Your task to perform on an android device: open chrome privacy settings Image 0: 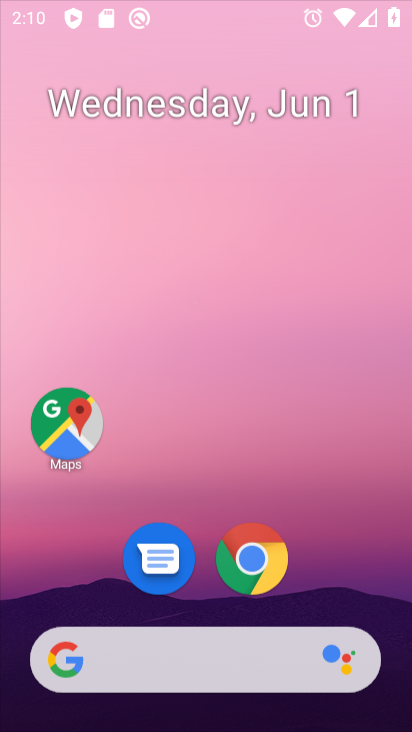
Step 0: press home button
Your task to perform on an android device: open chrome privacy settings Image 1: 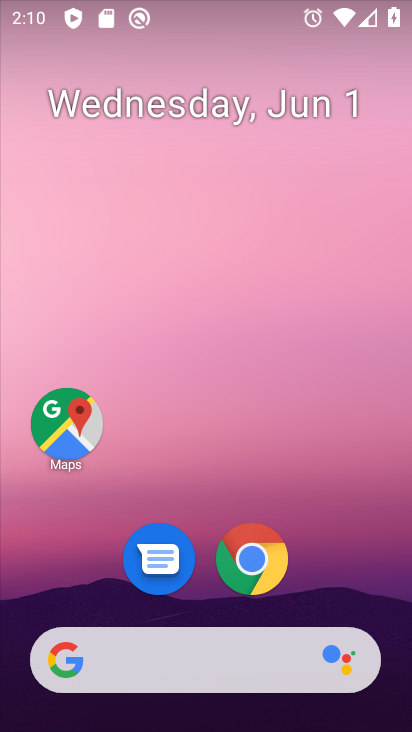
Step 1: click (252, 555)
Your task to perform on an android device: open chrome privacy settings Image 2: 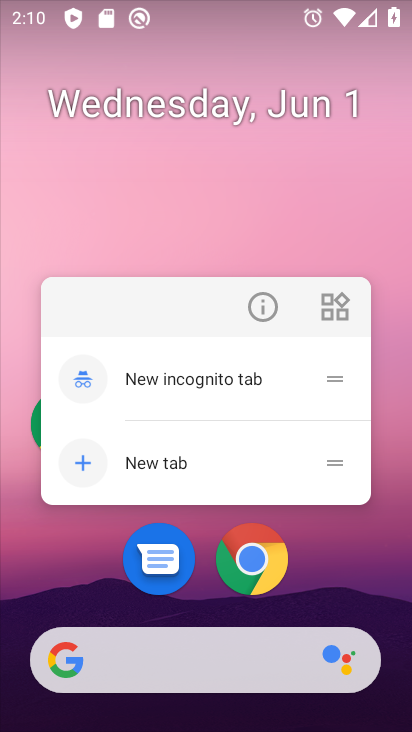
Step 2: click (251, 554)
Your task to perform on an android device: open chrome privacy settings Image 3: 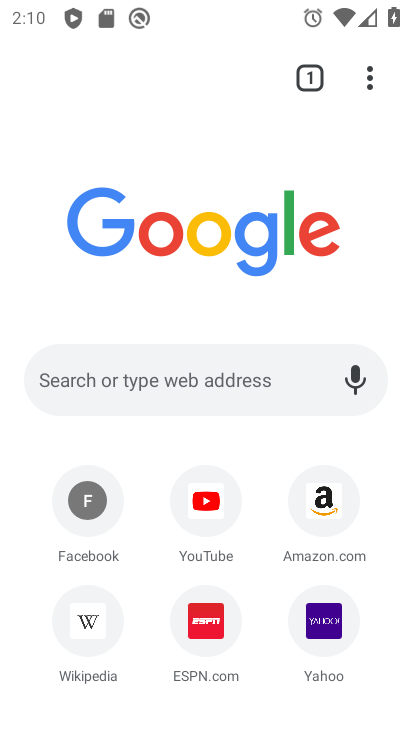
Step 3: drag from (370, 74) to (108, 645)
Your task to perform on an android device: open chrome privacy settings Image 4: 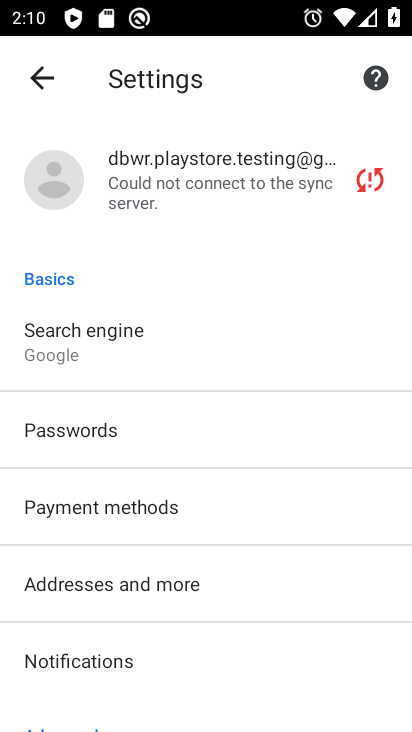
Step 4: drag from (217, 671) to (234, 216)
Your task to perform on an android device: open chrome privacy settings Image 5: 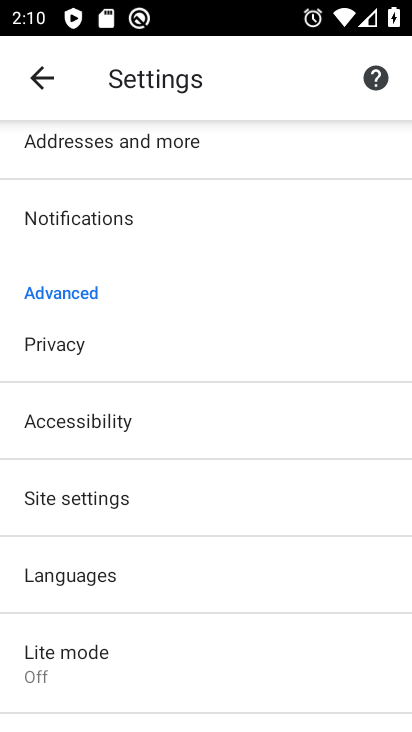
Step 5: click (61, 344)
Your task to perform on an android device: open chrome privacy settings Image 6: 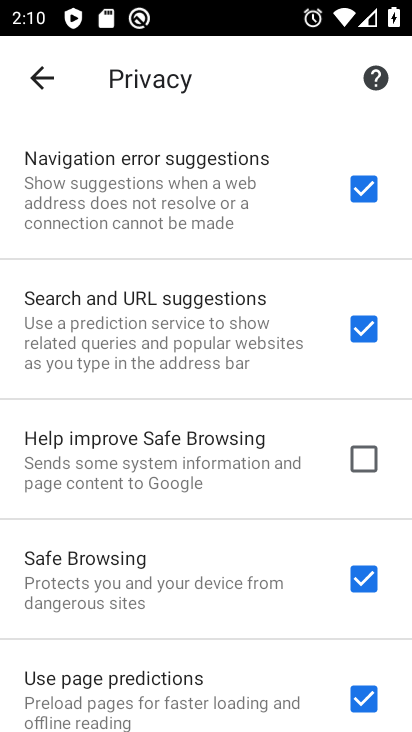
Step 6: task complete